Your task to perform on an android device: Open wifi settings Image 0: 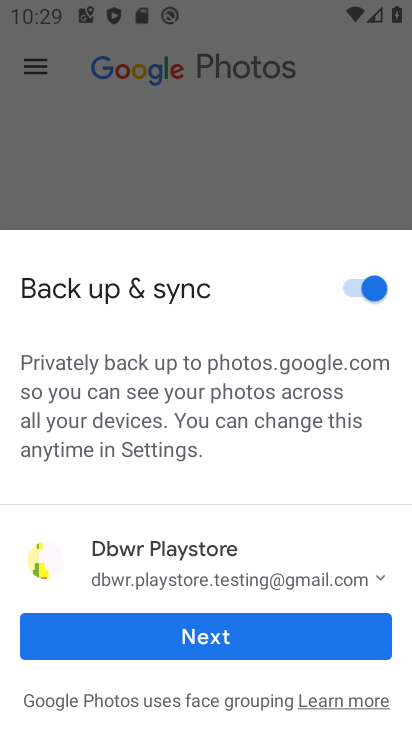
Step 0: press home button
Your task to perform on an android device: Open wifi settings Image 1: 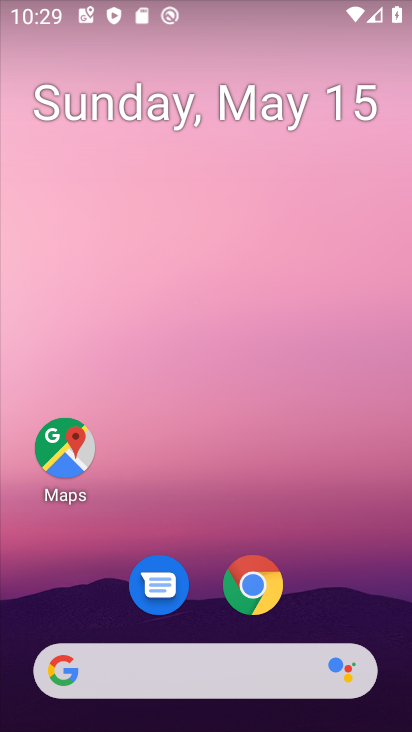
Step 1: drag from (269, 453) to (261, 17)
Your task to perform on an android device: Open wifi settings Image 2: 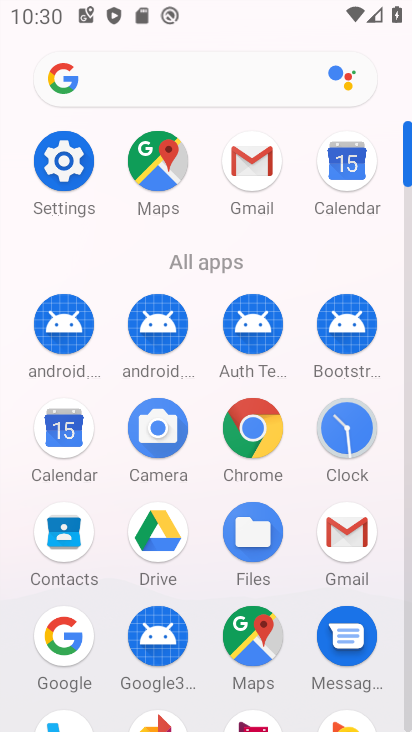
Step 2: click (72, 161)
Your task to perform on an android device: Open wifi settings Image 3: 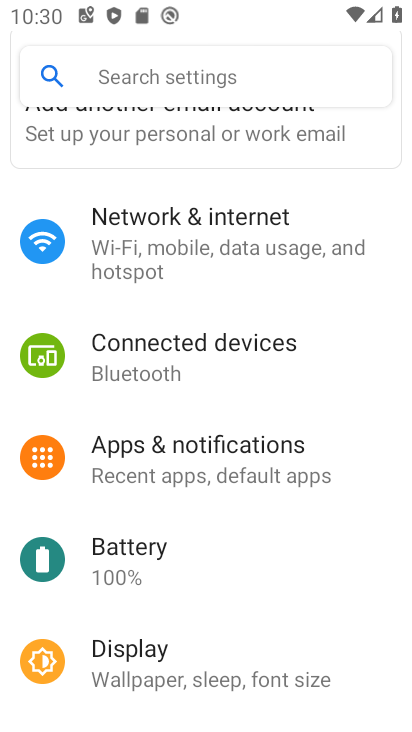
Step 3: click (216, 221)
Your task to perform on an android device: Open wifi settings Image 4: 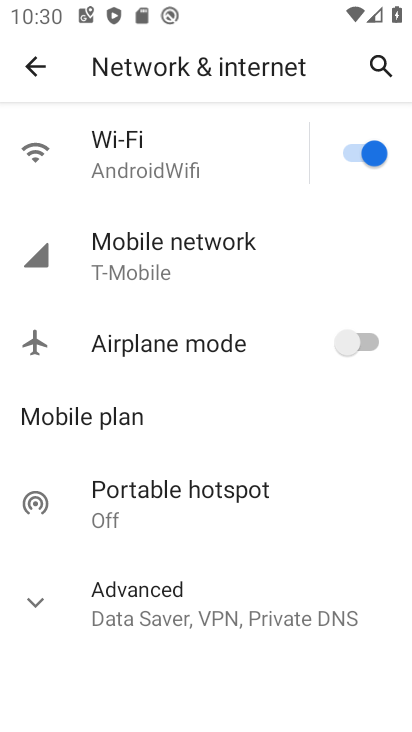
Step 4: click (196, 150)
Your task to perform on an android device: Open wifi settings Image 5: 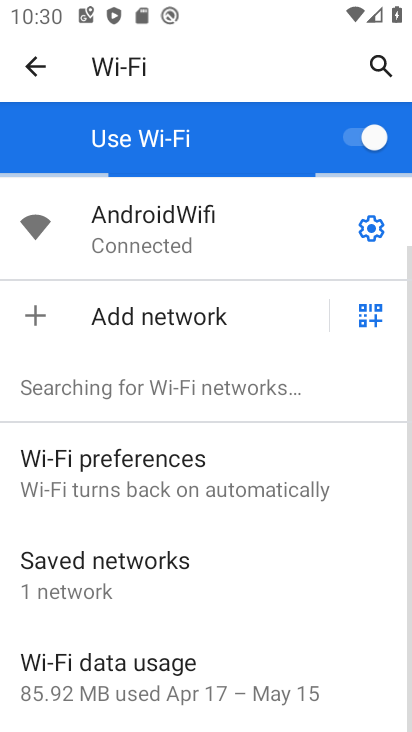
Step 5: task complete